Your task to perform on an android device: Open the phone app and click the voicemail tab. Image 0: 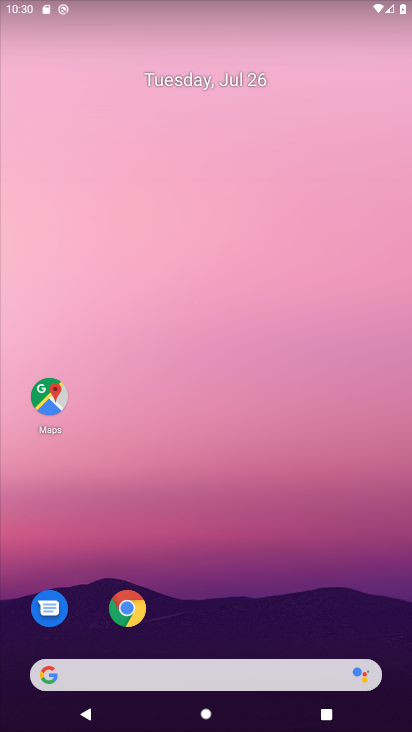
Step 0: drag from (340, 642) to (288, 84)
Your task to perform on an android device: Open the phone app and click the voicemail tab. Image 1: 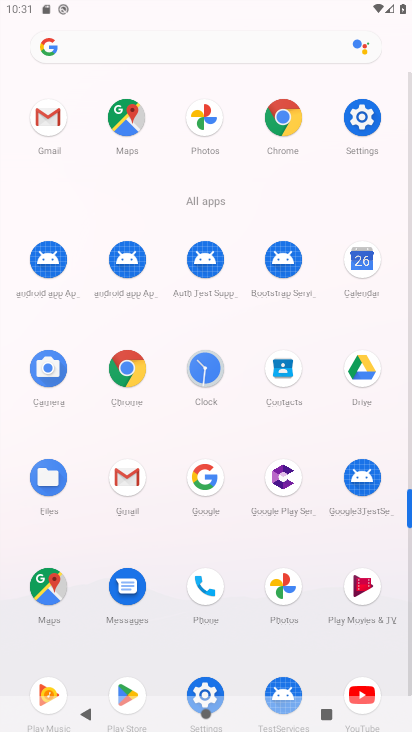
Step 1: click (207, 590)
Your task to perform on an android device: Open the phone app and click the voicemail tab. Image 2: 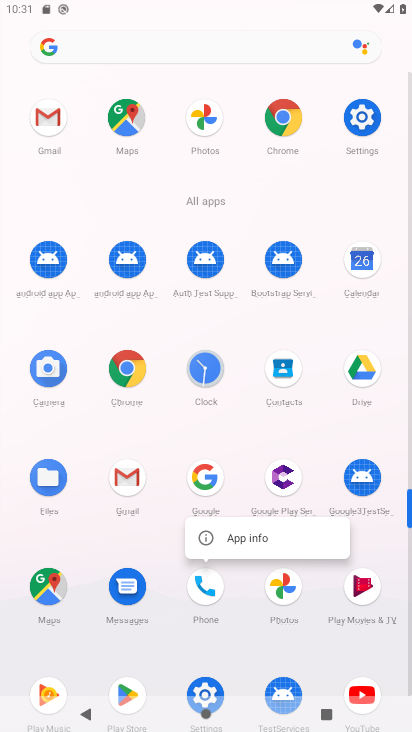
Step 2: click (207, 590)
Your task to perform on an android device: Open the phone app and click the voicemail tab. Image 3: 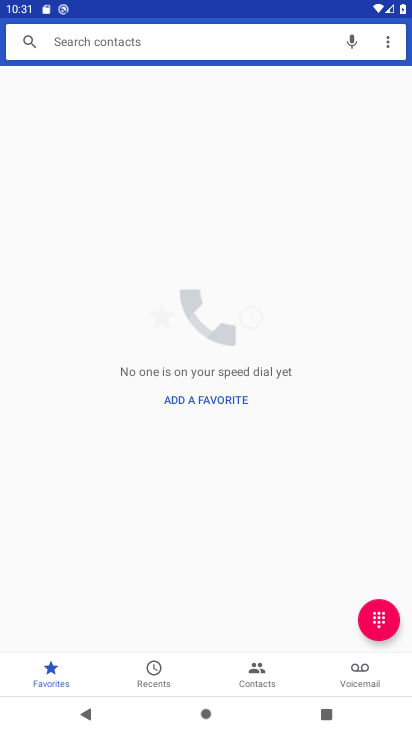
Step 3: click (373, 661)
Your task to perform on an android device: Open the phone app and click the voicemail tab. Image 4: 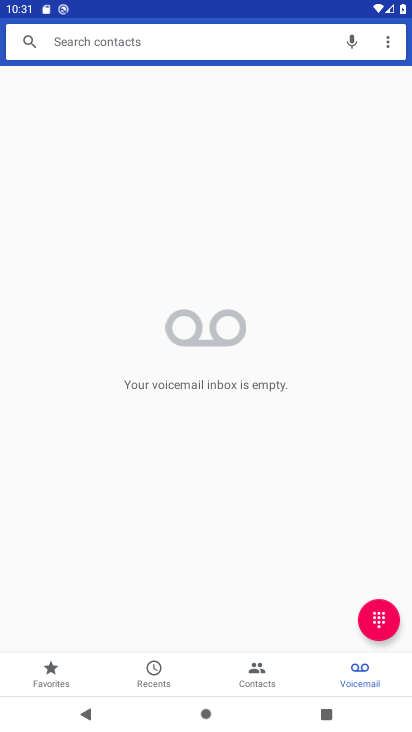
Step 4: task complete